Your task to perform on an android device: open a bookmark in the chrome app Image 0: 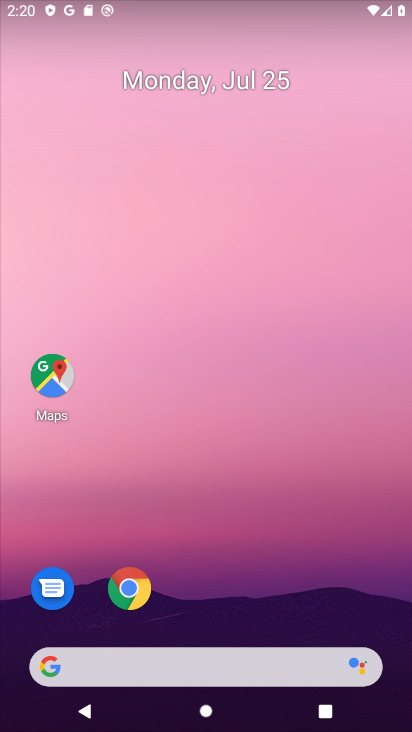
Step 0: press home button
Your task to perform on an android device: open a bookmark in the chrome app Image 1: 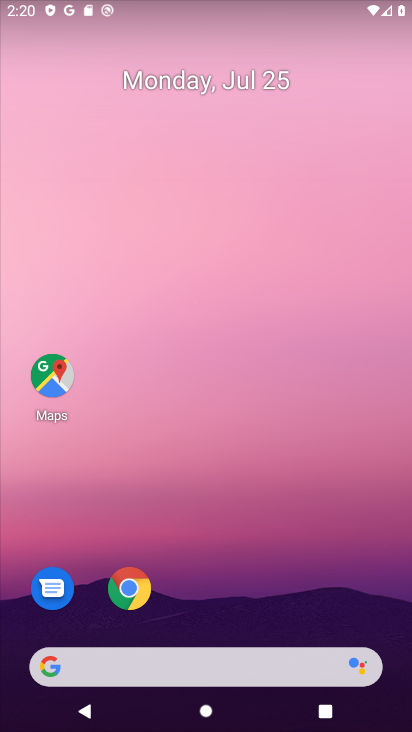
Step 1: drag from (212, 624) to (249, 72)
Your task to perform on an android device: open a bookmark in the chrome app Image 2: 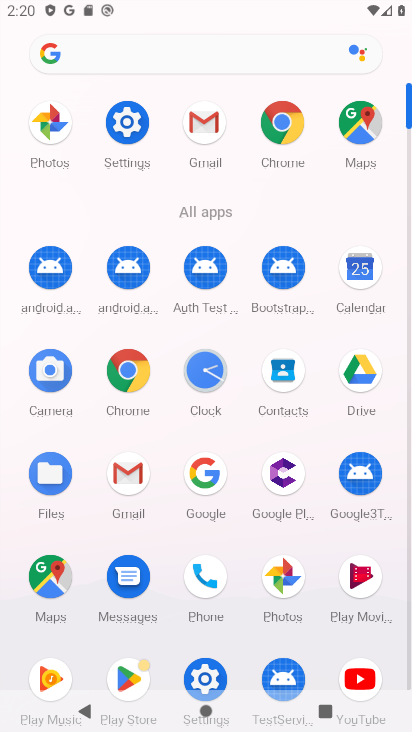
Step 2: click (280, 112)
Your task to perform on an android device: open a bookmark in the chrome app Image 3: 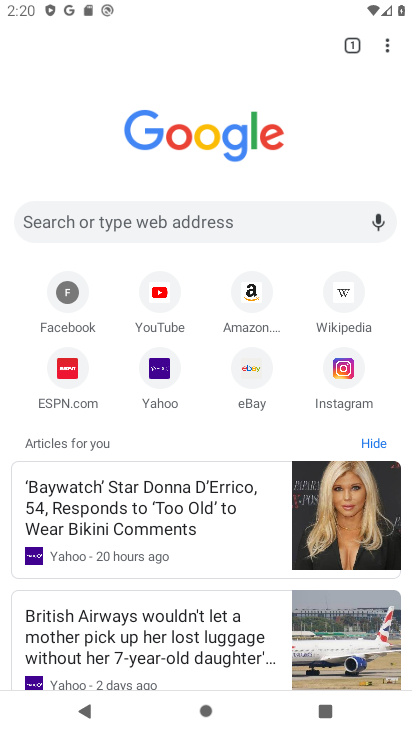
Step 3: click (388, 42)
Your task to perform on an android device: open a bookmark in the chrome app Image 4: 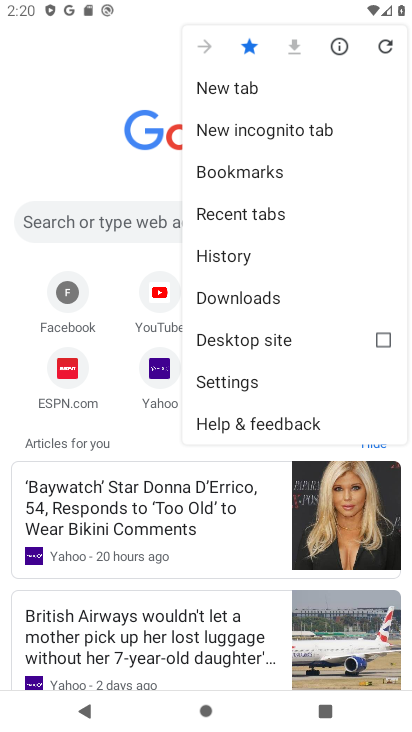
Step 4: click (299, 168)
Your task to perform on an android device: open a bookmark in the chrome app Image 5: 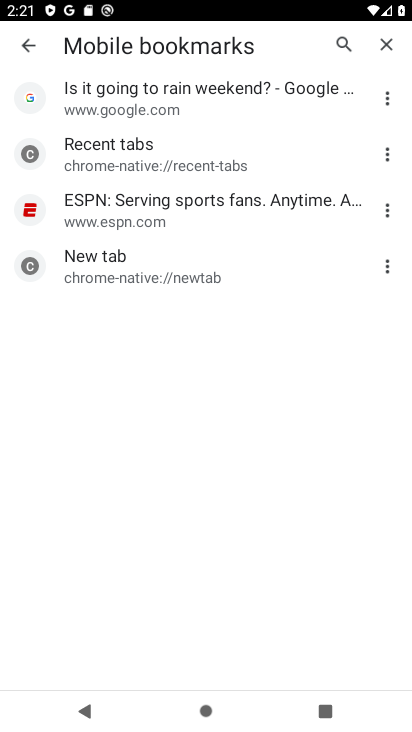
Step 5: click (179, 204)
Your task to perform on an android device: open a bookmark in the chrome app Image 6: 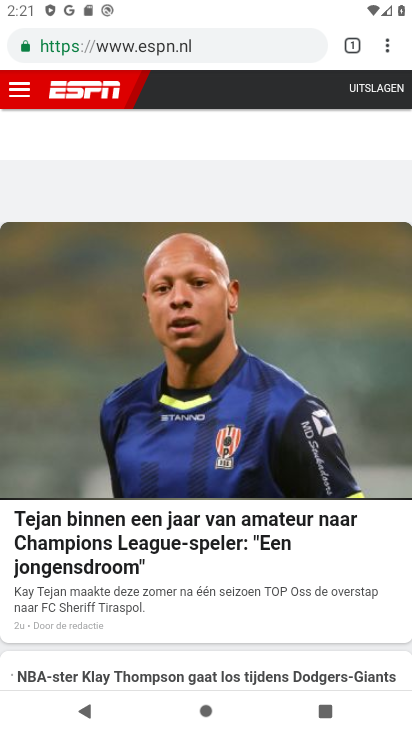
Step 6: task complete